Your task to perform on an android device: Open calendar and show me the second week of next month Image 0: 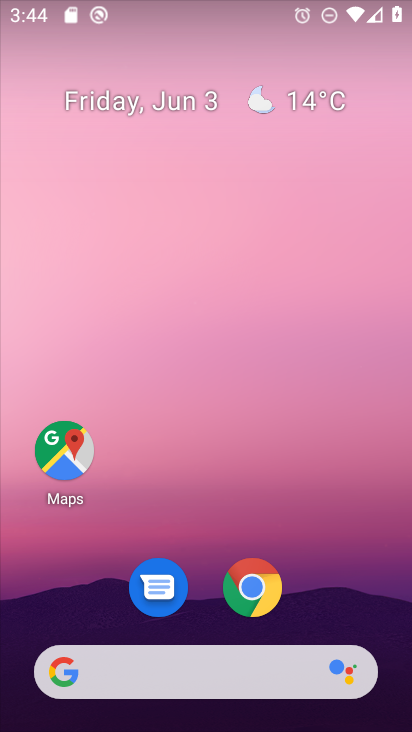
Step 0: drag from (242, 716) to (244, 145)
Your task to perform on an android device: Open calendar and show me the second week of next month Image 1: 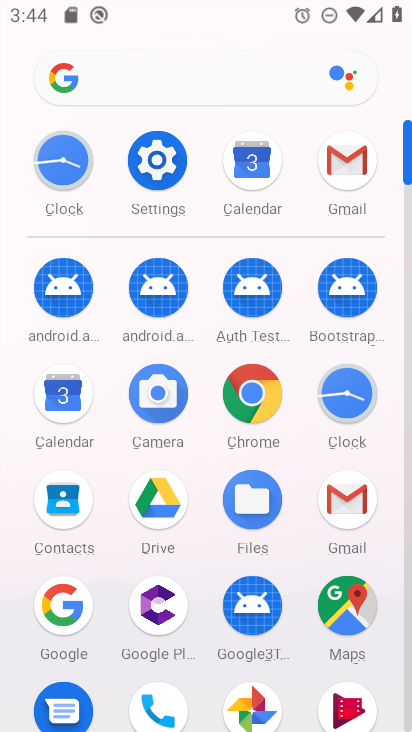
Step 1: click (55, 398)
Your task to perform on an android device: Open calendar and show me the second week of next month Image 2: 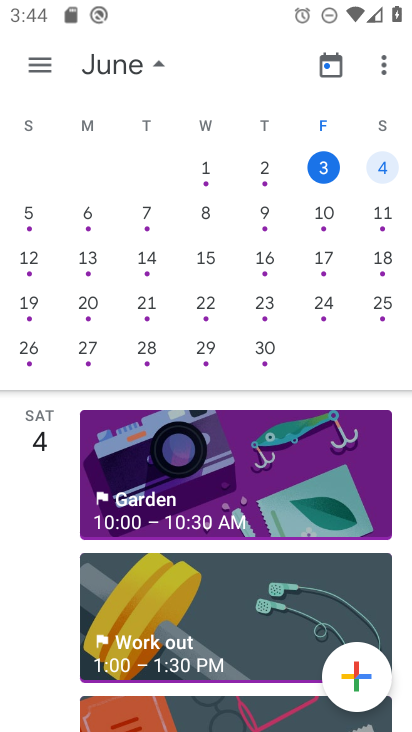
Step 2: click (66, 202)
Your task to perform on an android device: Open calendar and show me the second week of next month Image 3: 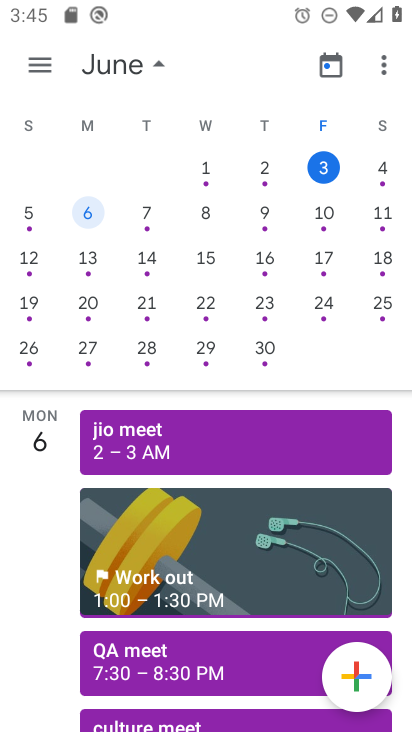
Step 3: drag from (300, 261) to (48, 255)
Your task to perform on an android device: Open calendar and show me the second week of next month Image 4: 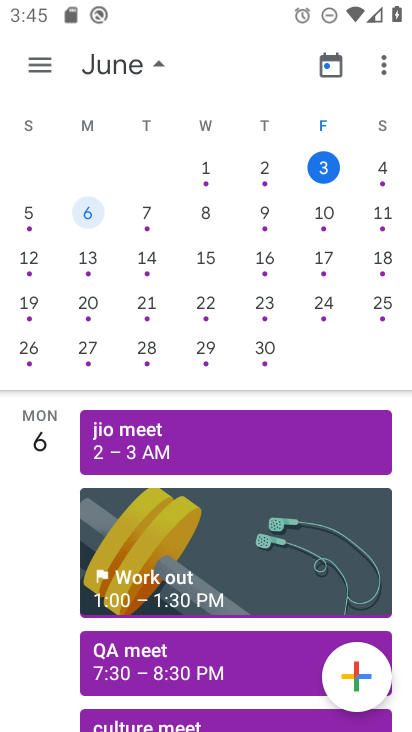
Step 4: drag from (347, 282) to (4, 269)
Your task to perform on an android device: Open calendar and show me the second week of next month Image 5: 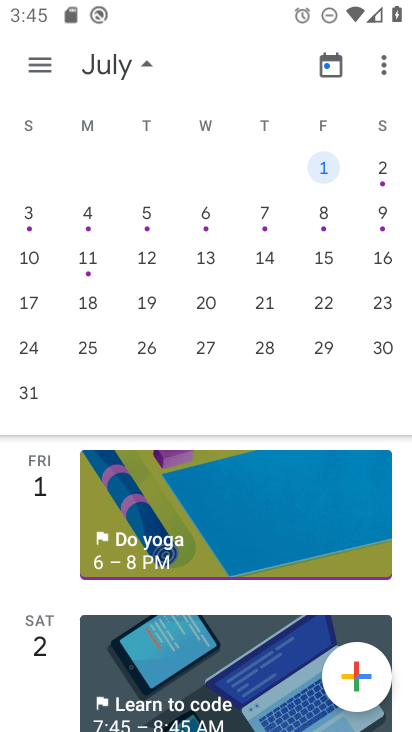
Step 5: click (88, 251)
Your task to perform on an android device: Open calendar and show me the second week of next month Image 6: 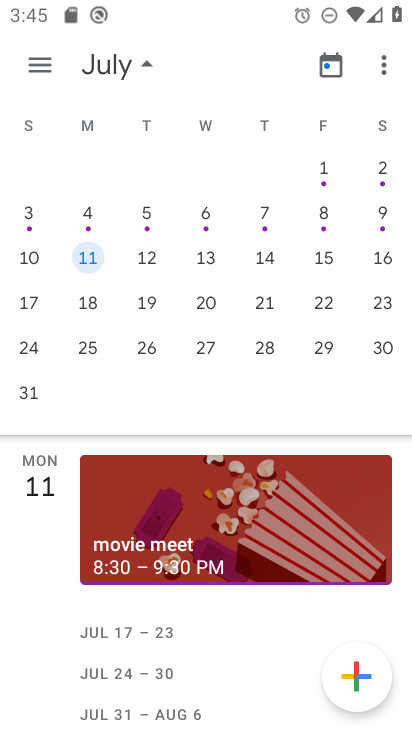
Step 6: click (40, 61)
Your task to perform on an android device: Open calendar and show me the second week of next month Image 7: 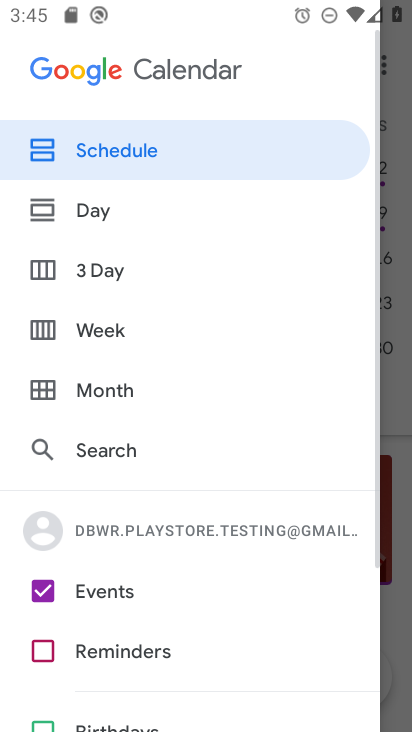
Step 7: click (88, 326)
Your task to perform on an android device: Open calendar and show me the second week of next month Image 8: 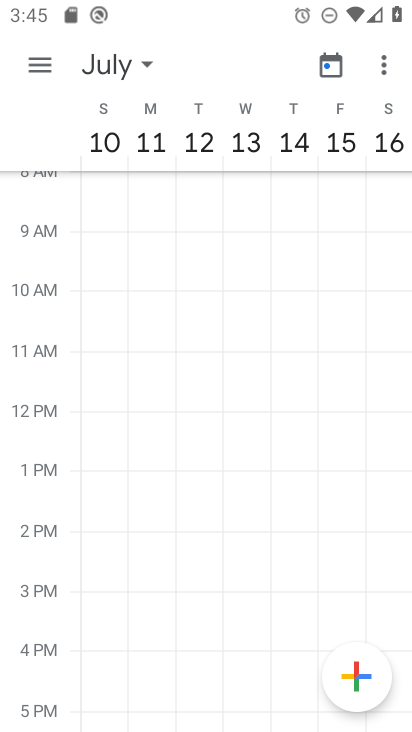
Step 8: task complete